Your task to perform on an android device: Add macbook pro 13 inch to the cart on walmart.com Image 0: 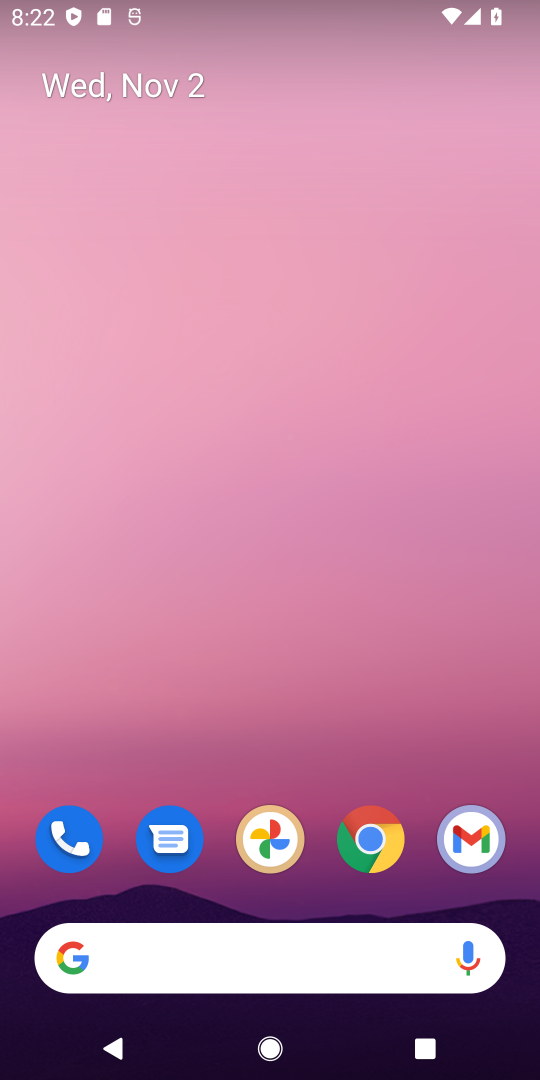
Step 0: click (372, 839)
Your task to perform on an android device: Add macbook pro 13 inch to the cart on walmart.com Image 1: 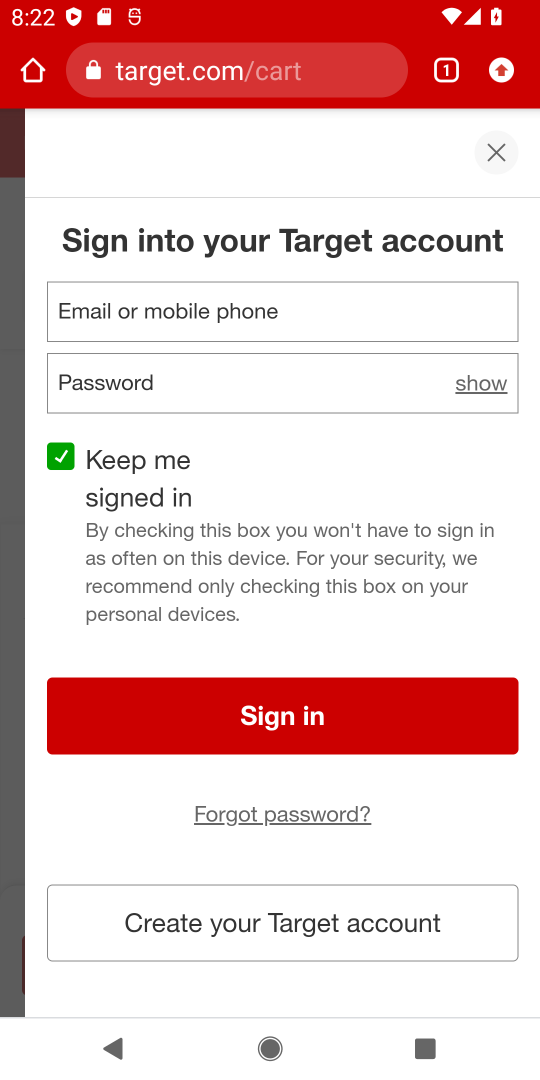
Step 1: click (322, 76)
Your task to perform on an android device: Add macbook pro 13 inch to the cart on walmart.com Image 2: 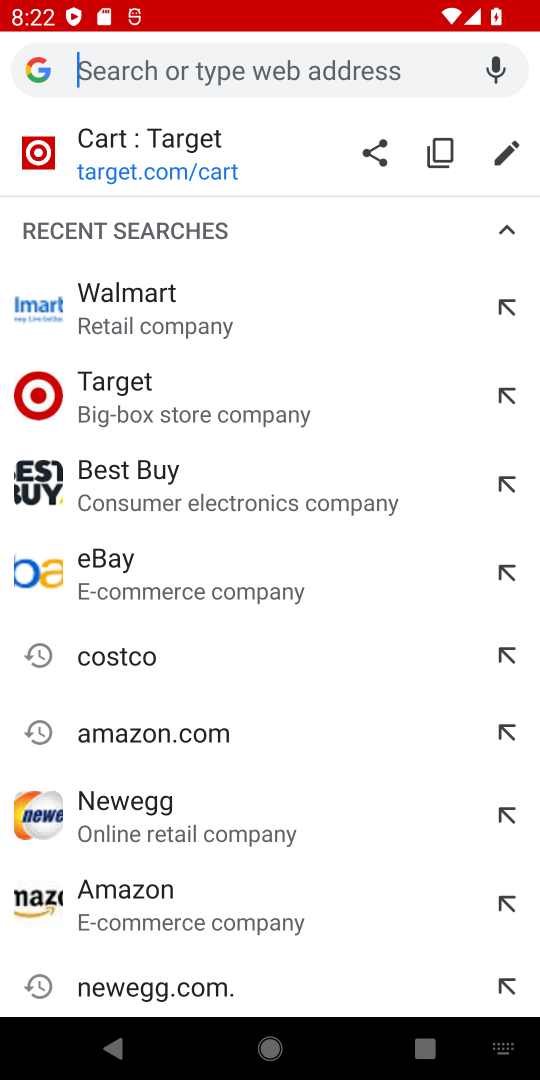
Step 2: type "walmart.com"
Your task to perform on an android device: Add macbook pro 13 inch to the cart on walmart.com Image 3: 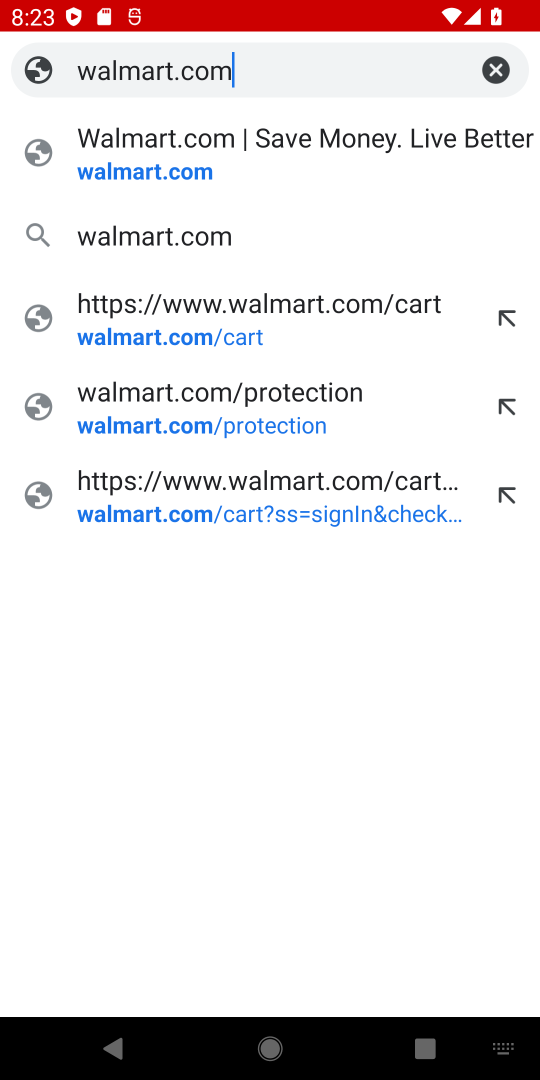
Step 3: click (198, 246)
Your task to perform on an android device: Add macbook pro 13 inch to the cart on walmart.com Image 4: 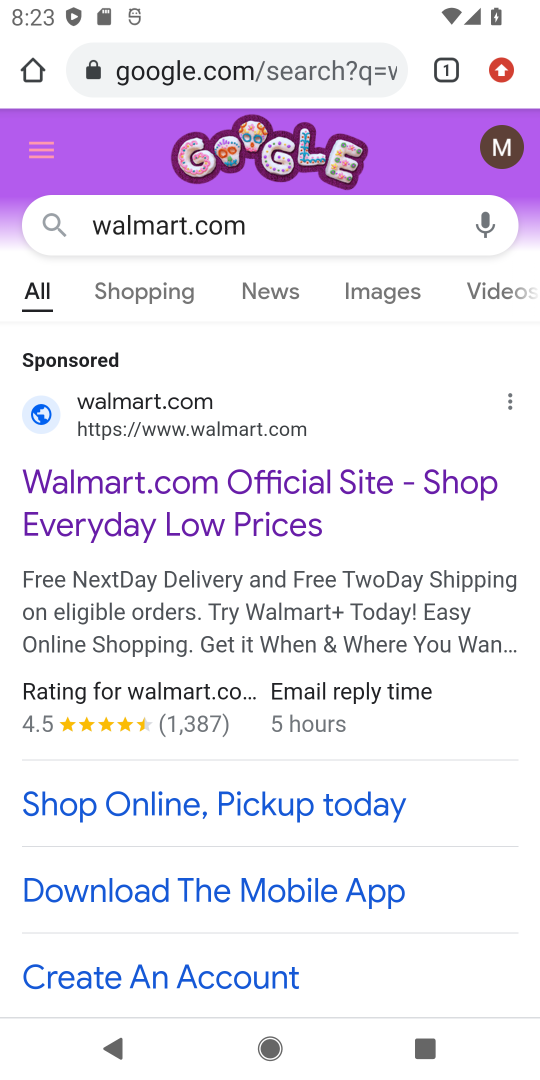
Step 4: drag from (297, 793) to (377, 349)
Your task to perform on an android device: Add macbook pro 13 inch to the cart on walmart.com Image 5: 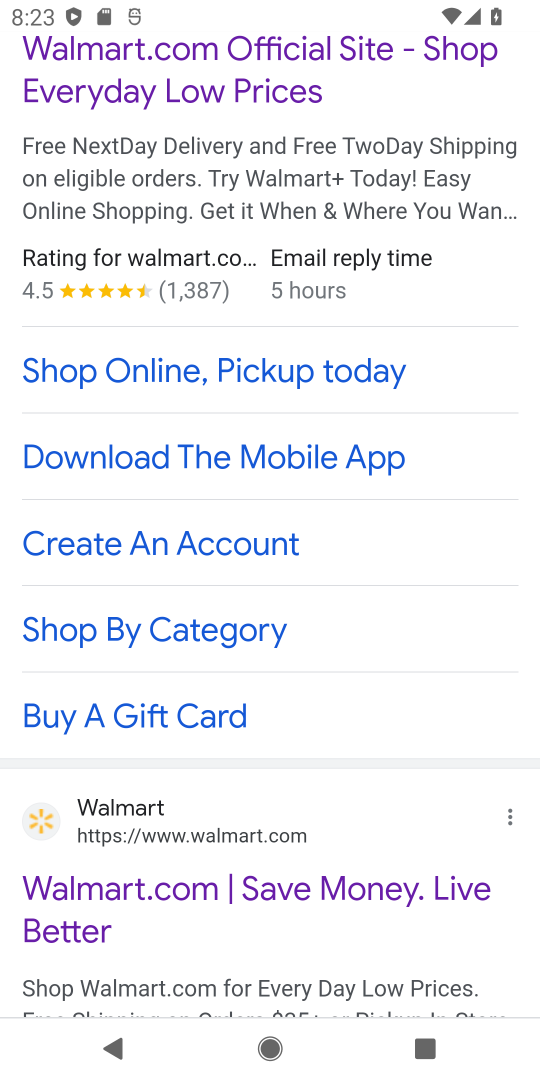
Step 5: click (293, 888)
Your task to perform on an android device: Add macbook pro 13 inch to the cart on walmart.com Image 6: 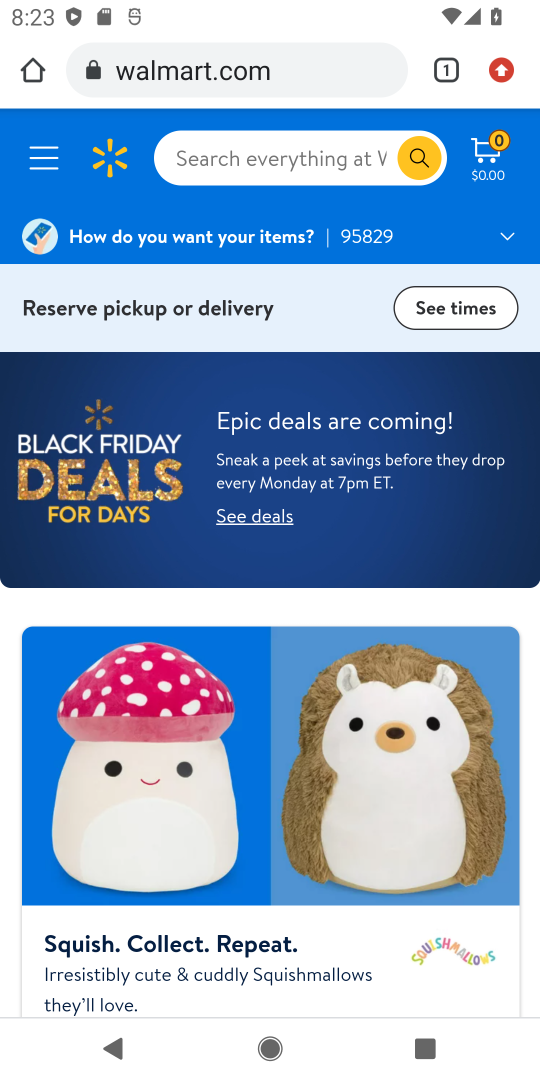
Step 6: click (288, 153)
Your task to perform on an android device: Add macbook pro 13 inch to the cart on walmart.com Image 7: 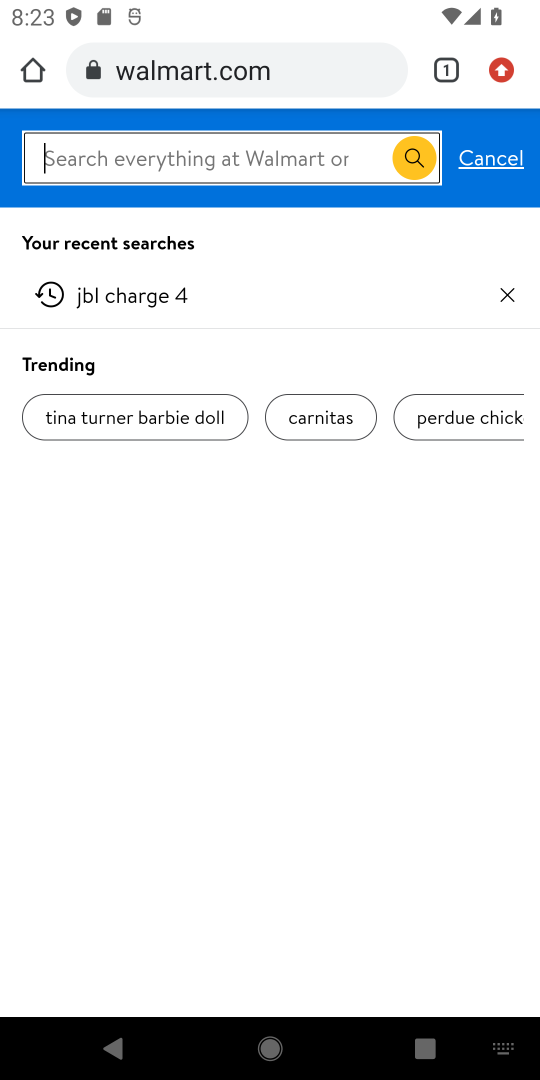
Step 7: type "macbook pro 13"
Your task to perform on an android device: Add macbook pro 13 inch to the cart on walmart.com Image 8: 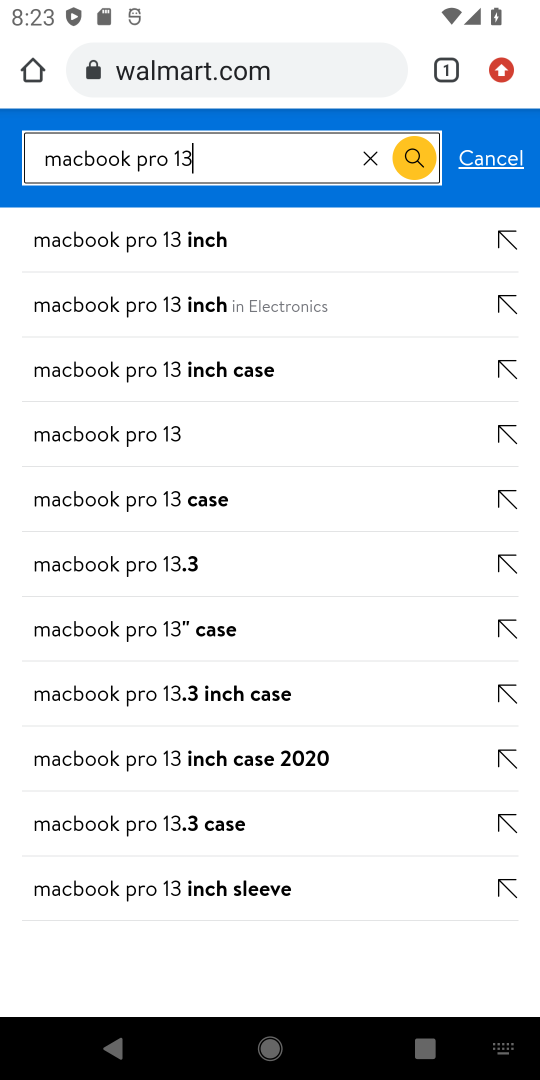
Step 8: click (420, 164)
Your task to perform on an android device: Add macbook pro 13 inch to the cart on walmart.com Image 9: 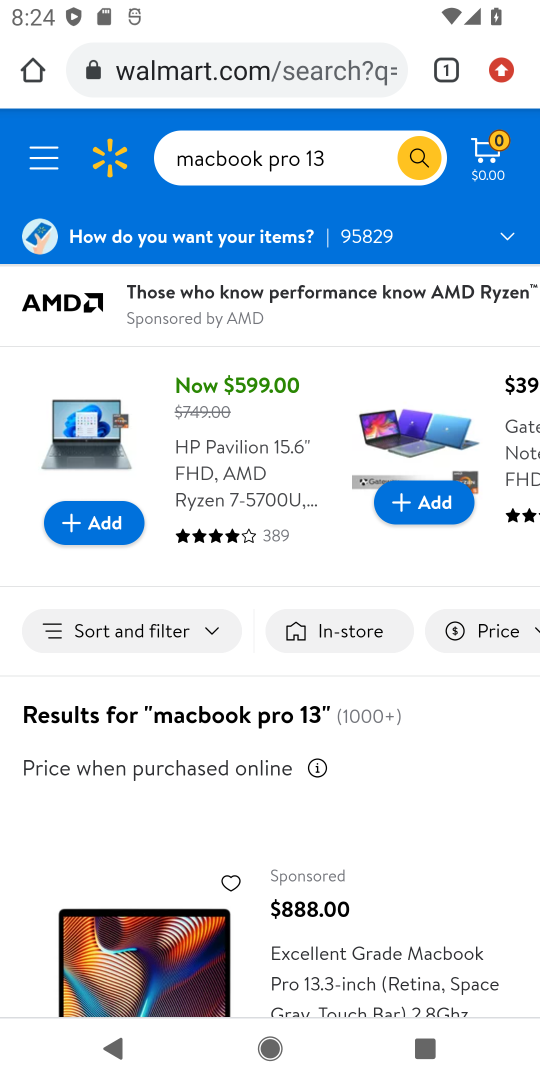
Step 9: drag from (396, 901) to (443, 445)
Your task to perform on an android device: Add macbook pro 13 inch to the cart on walmart.com Image 10: 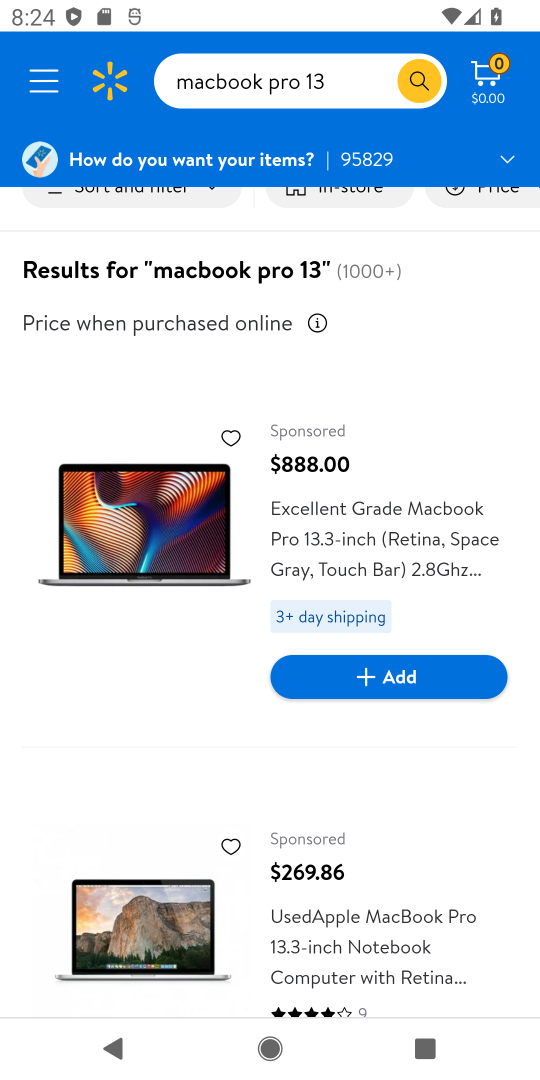
Step 10: drag from (406, 791) to (475, 374)
Your task to perform on an android device: Add macbook pro 13 inch to the cart on walmart.com Image 11: 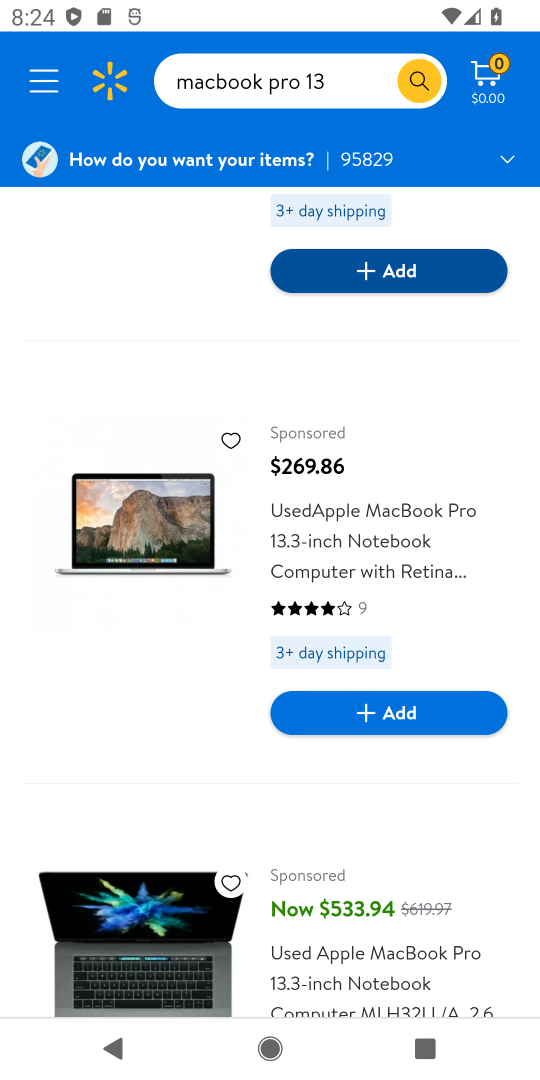
Step 11: drag from (414, 818) to (453, 438)
Your task to perform on an android device: Add macbook pro 13 inch to the cart on walmart.com Image 12: 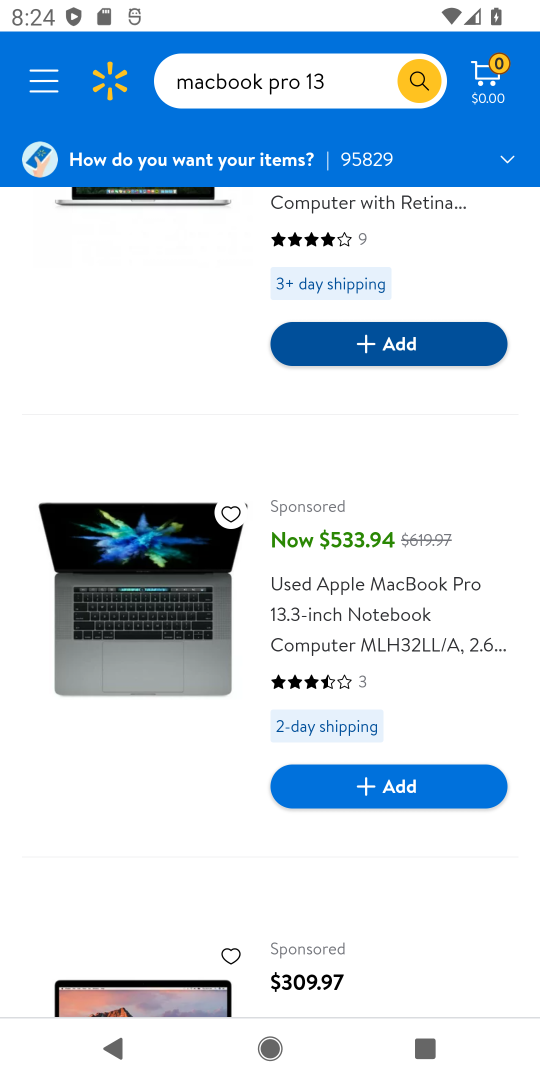
Step 12: drag from (445, 295) to (388, 735)
Your task to perform on an android device: Add macbook pro 13 inch to the cart on walmart.com Image 13: 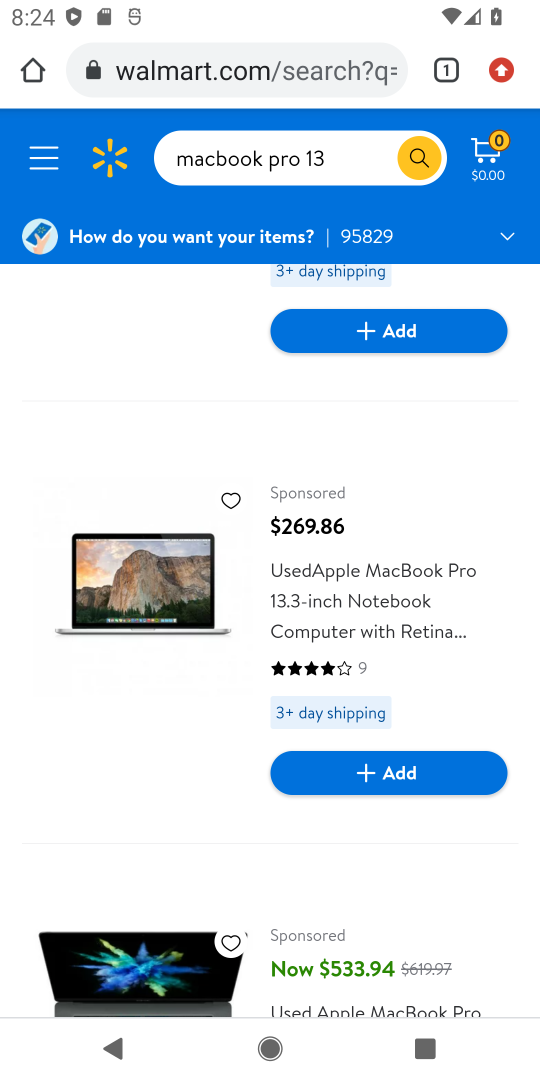
Step 13: drag from (402, 431) to (371, 724)
Your task to perform on an android device: Add macbook pro 13 inch to the cart on walmart.com Image 14: 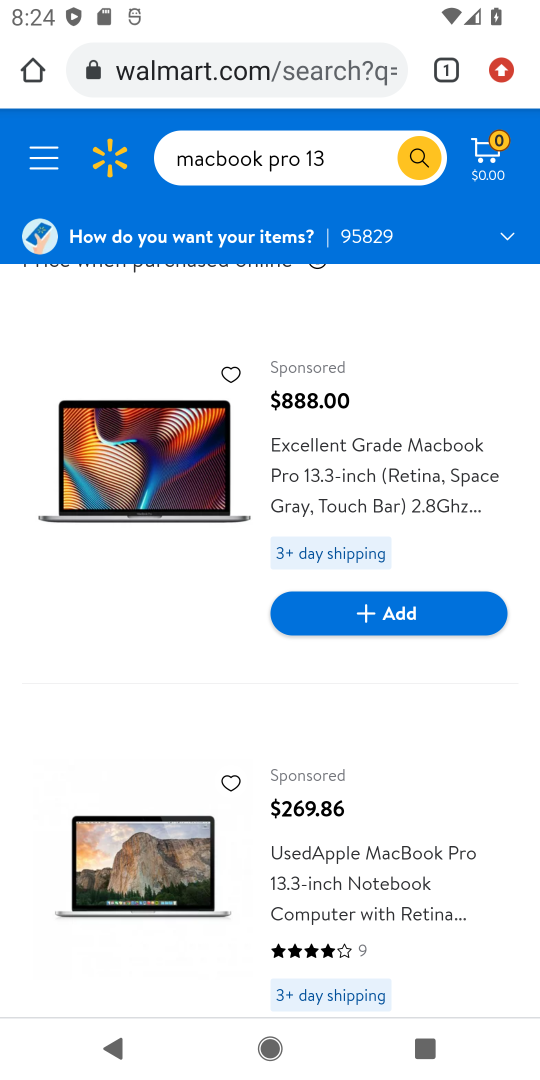
Step 14: click (390, 617)
Your task to perform on an android device: Add macbook pro 13 inch to the cart on walmart.com Image 15: 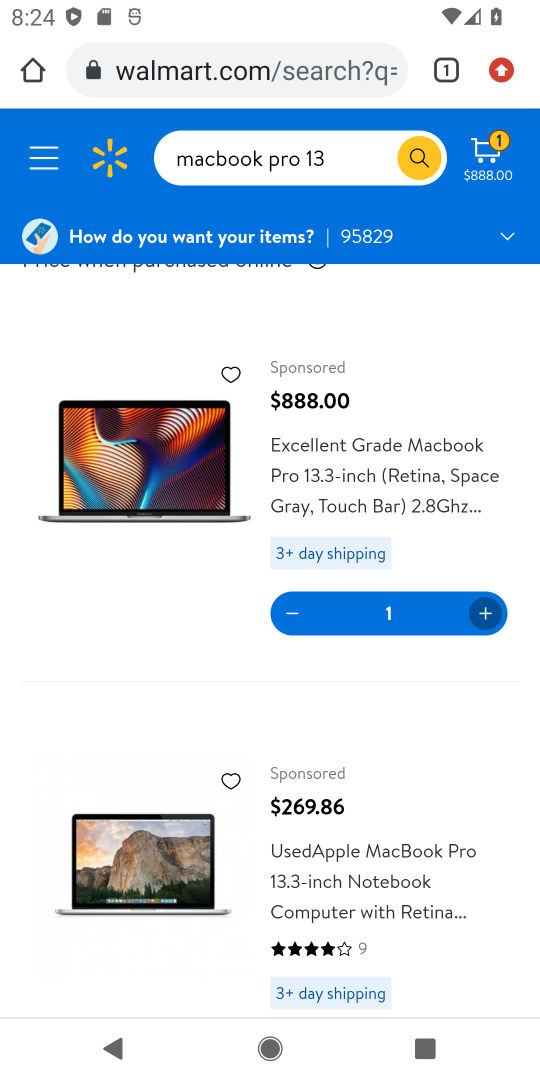
Step 15: task complete